Your task to perform on an android device: install app "eBay: The shopping marketplace" Image 0: 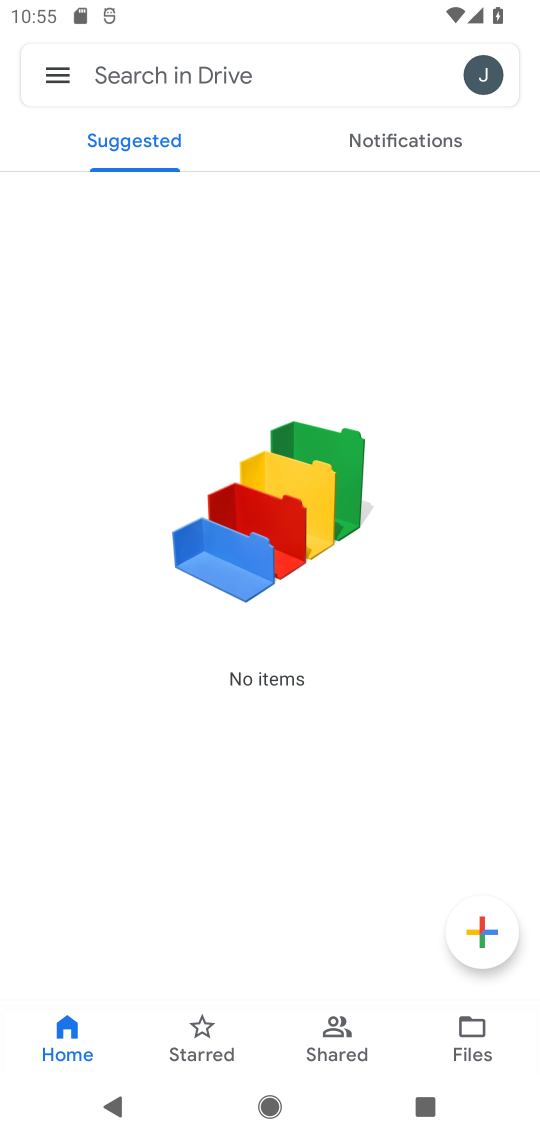
Step 0: press home button
Your task to perform on an android device: install app "eBay: The shopping marketplace" Image 1: 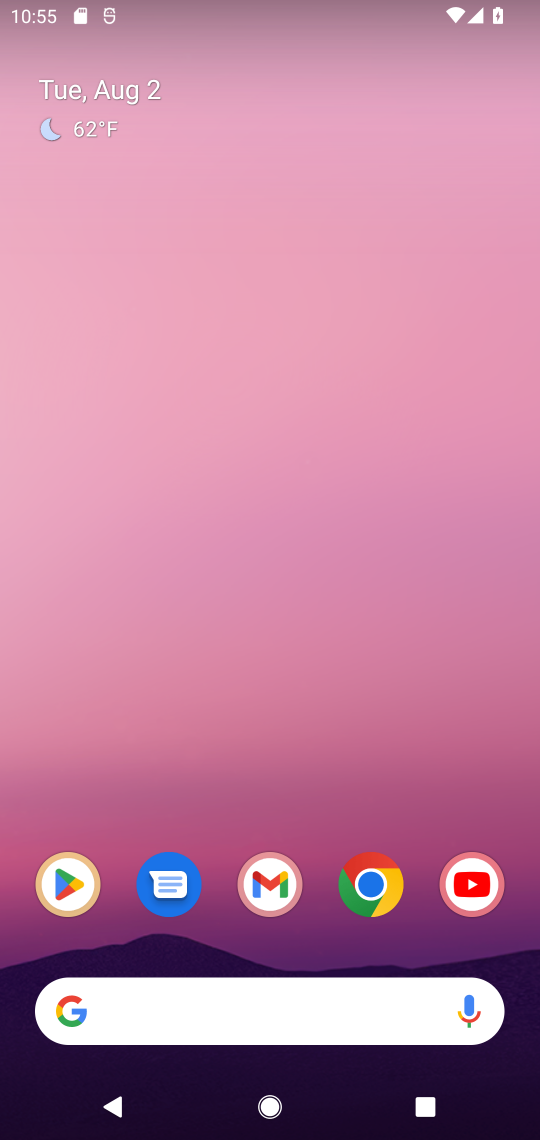
Step 1: click (58, 897)
Your task to perform on an android device: install app "eBay: The shopping marketplace" Image 2: 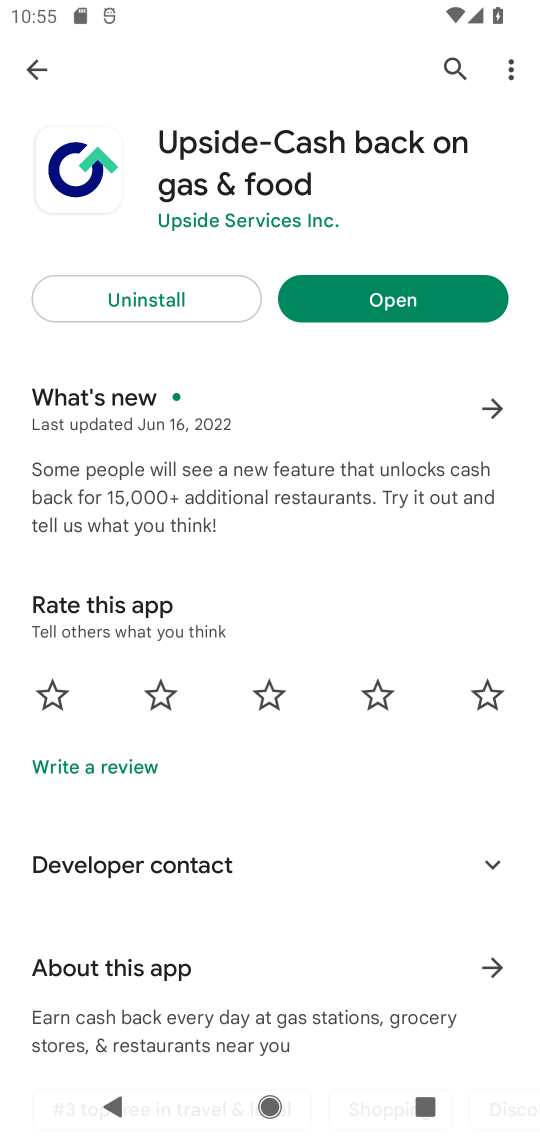
Step 2: click (40, 57)
Your task to perform on an android device: install app "eBay: The shopping marketplace" Image 3: 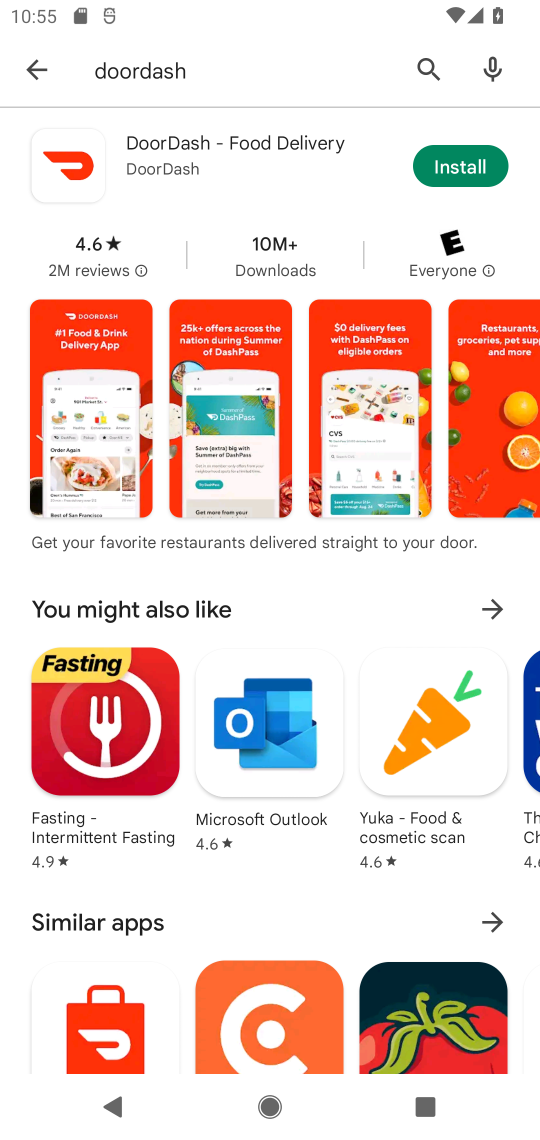
Step 3: click (230, 72)
Your task to perform on an android device: install app "eBay: The shopping marketplace" Image 4: 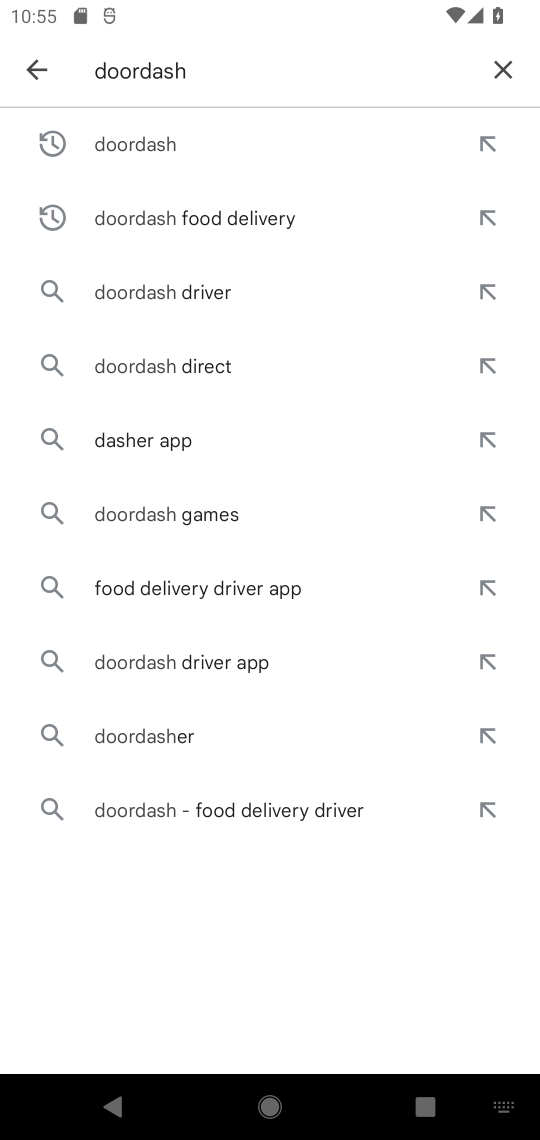
Step 4: click (504, 69)
Your task to perform on an android device: install app "eBay: The shopping marketplace" Image 5: 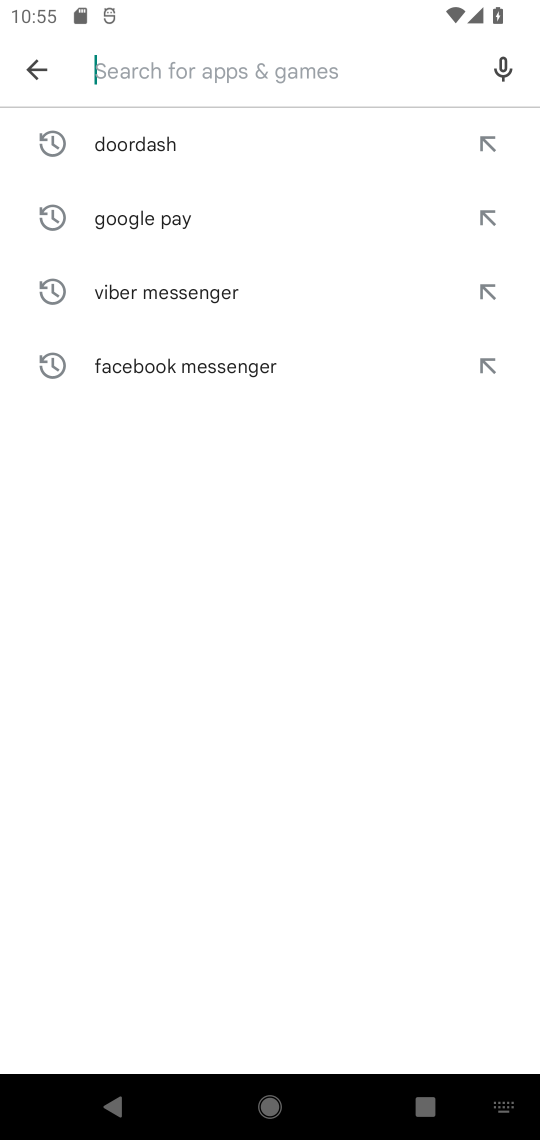
Step 5: type "eBay"
Your task to perform on an android device: install app "eBay: The shopping marketplace" Image 6: 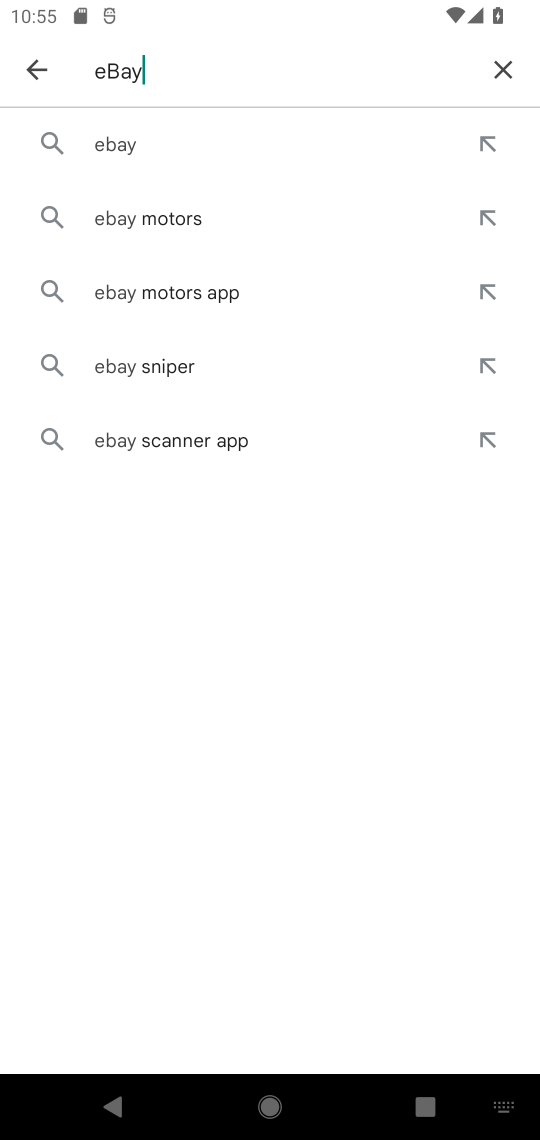
Step 6: click (122, 142)
Your task to perform on an android device: install app "eBay: The shopping marketplace" Image 7: 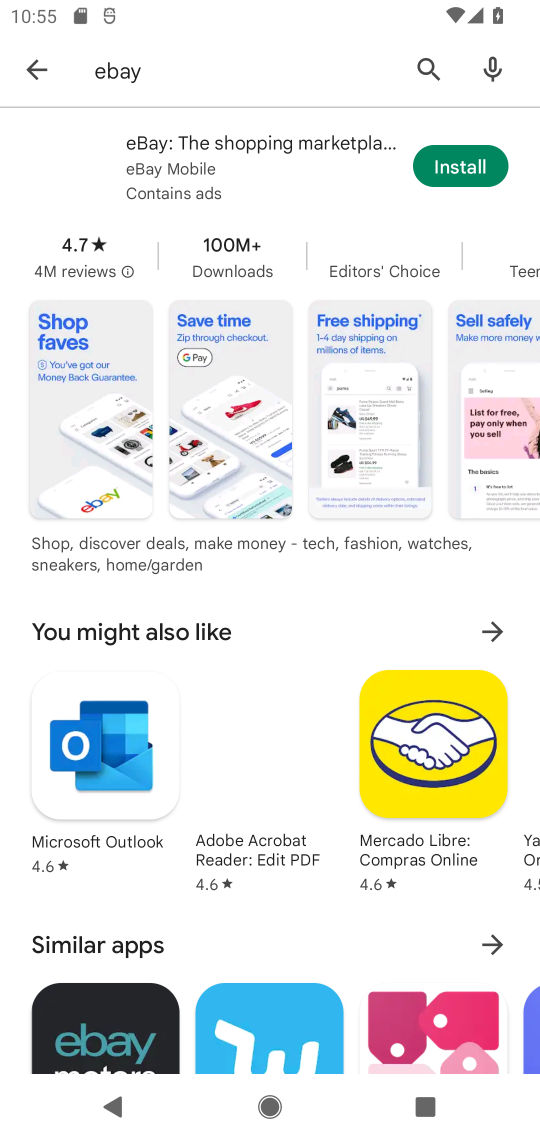
Step 7: click (451, 144)
Your task to perform on an android device: install app "eBay: The shopping marketplace" Image 8: 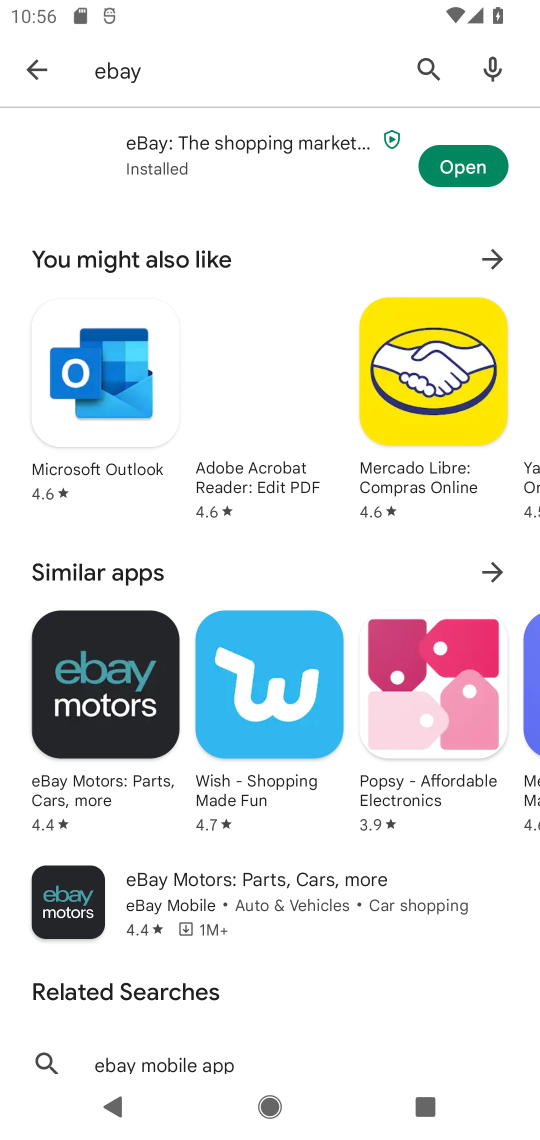
Step 8: task complete